Your task to perform on an android device: search for starred emails in the gmail app Image 0: 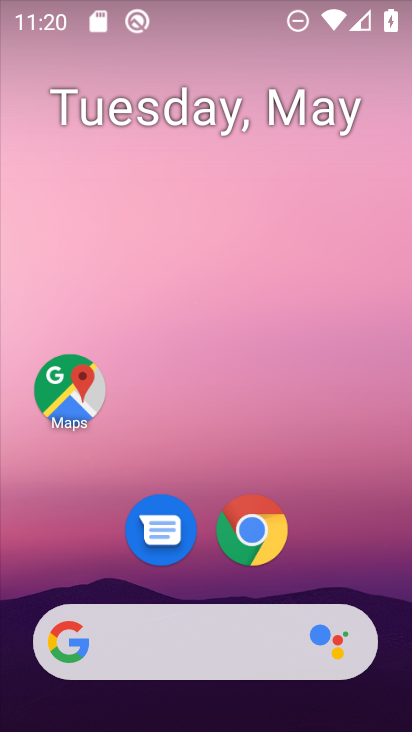
Step 0: drag from (333, 505) to (371, 147)
Your task to perform on an android device: search for starred emails in the gmail app Image 1: 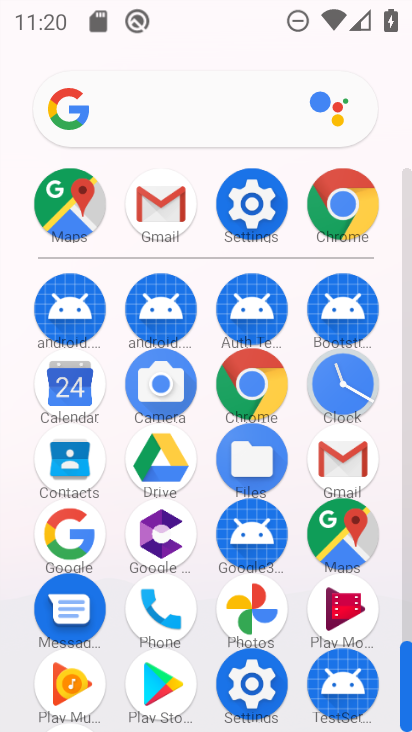
Step 1: click (343, 462)
Your task to perform on an android device: search for starred emails in the gmail app Image 2: 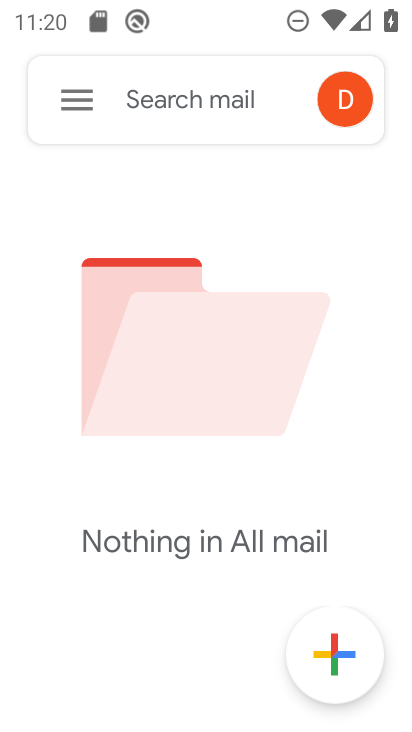
Step 2: click (74, 98)
Your task to perform on an android device: search for starred emails in the gmail app Image 3: 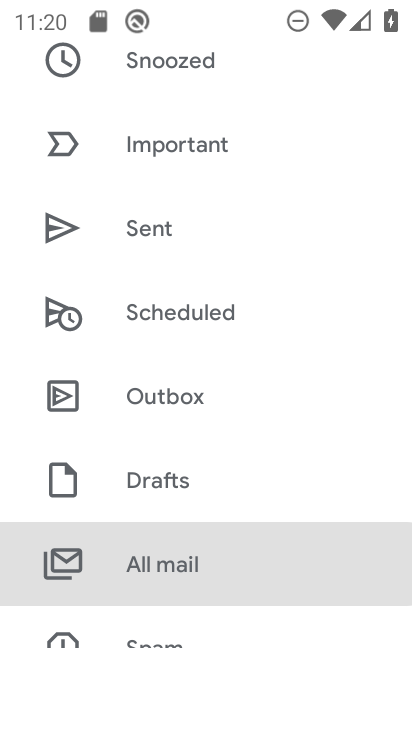
Step 3: drag from (196, 213) to (193, 541)
Your task to perform on an android device: search for starred emails in the gmail app Image 4: 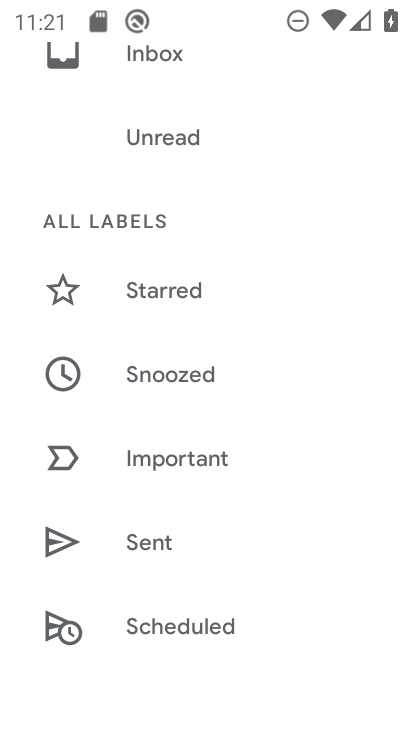
Step 4: click (171, 302)
Your task to perform on an android device: search for starred emails in the gmail app Image 5: 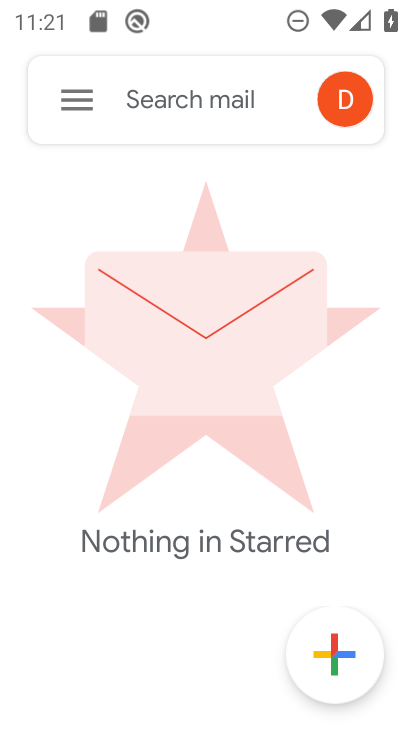
Step 5: task complete